Your task to perform on an android device: Open the map Image 0: 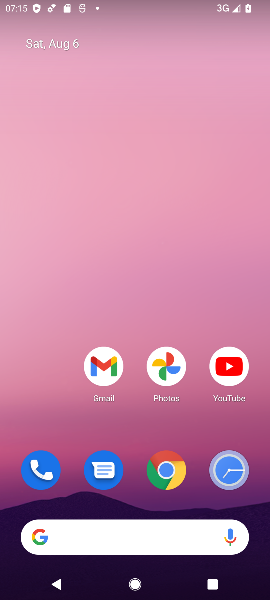
Step 0: drag from (180, 414) to (211, 5)
Your task to perform on an android device: Open the map Image 1: 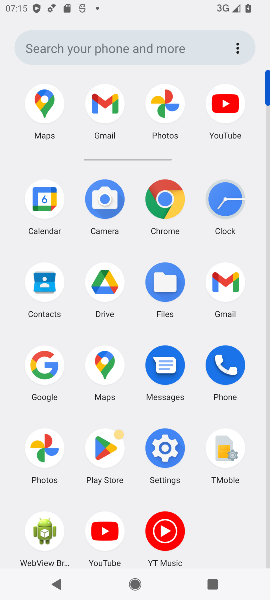
Step 1: click (51, 108)
Your task to perform on an android device: Open the map Image 2: 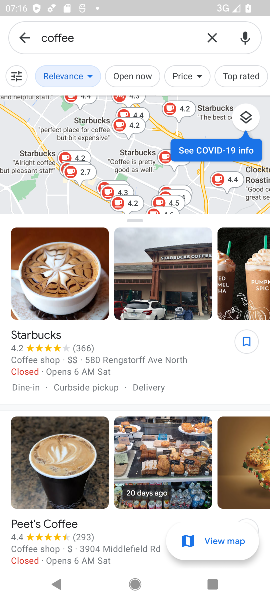
Step 2: task complete